Your task to perform on an android device: toggle notification dots Image 0: 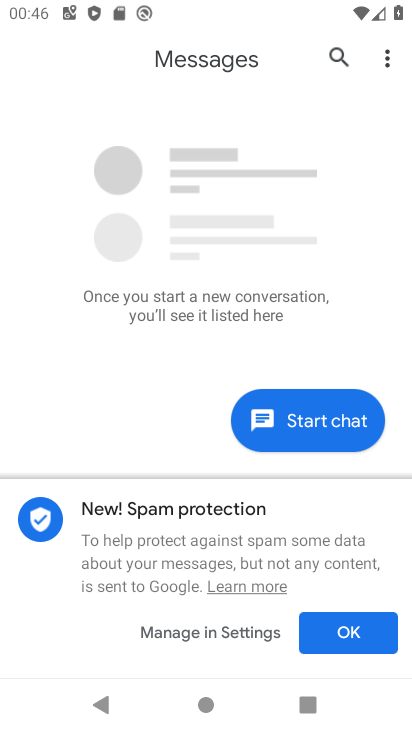
Step 0: press home button
Your task to perform on an android device: toggle notification dots Image 1: 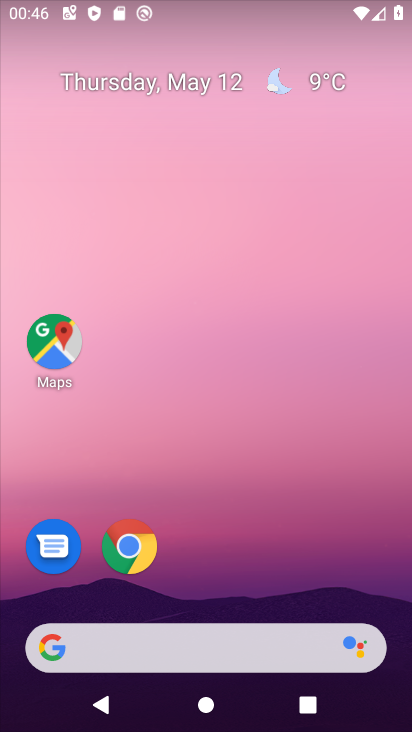
Step 1: drag from (177, 597) to (142, 202)
Your task to perform on an android device: toggle notification dots Image 2: 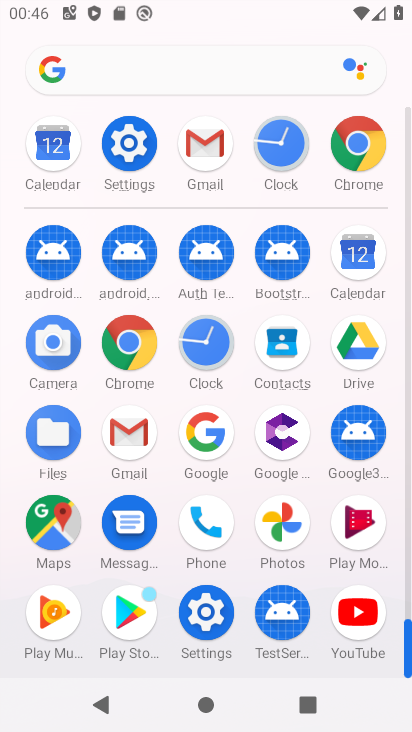
Step 2: click (126, 138)
Your task to perform on an android device: toggle notification dots Image 3: 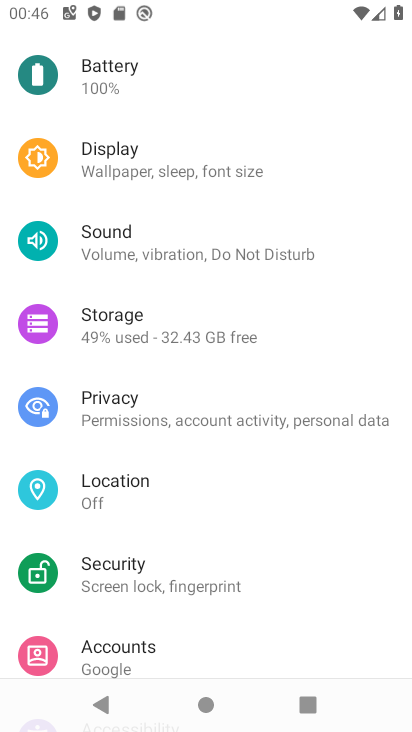
Step 3: drag from (159, 194) to (164, 582)
Your task to perform on an android device: toggle notification dots Image 4: 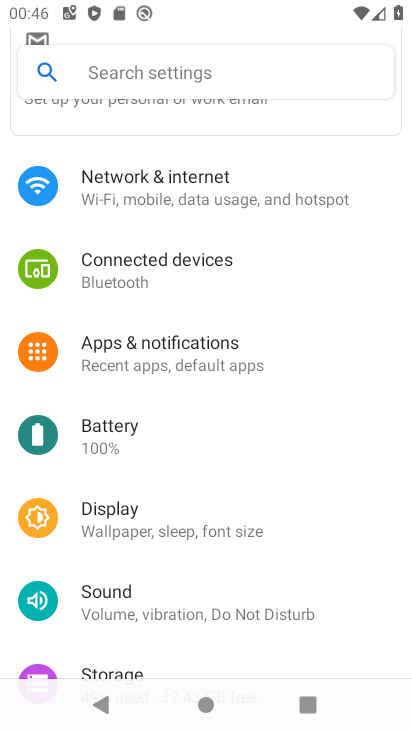
Step 4: click (151, 352)
Your task to perform on an android device: toggle notification dots Image 5: 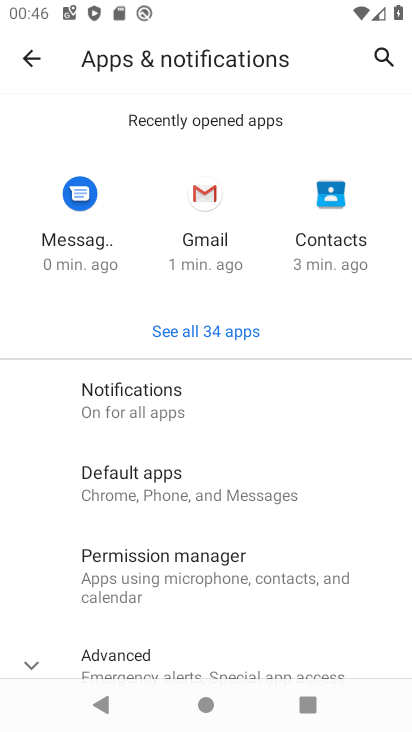
Step 5: click (168, 420)
Your task to perform on an android device: toggle notification dots Image 6: 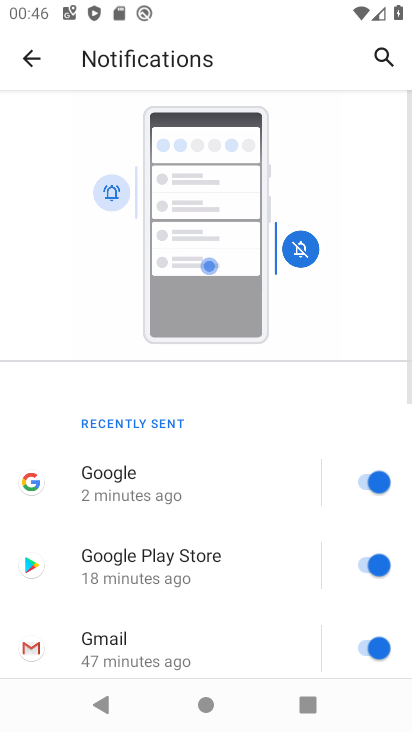
Step 6: drag from (211, 557) to (277, 178)
Your task to perform on an android device: toggle notification dots Image 7: 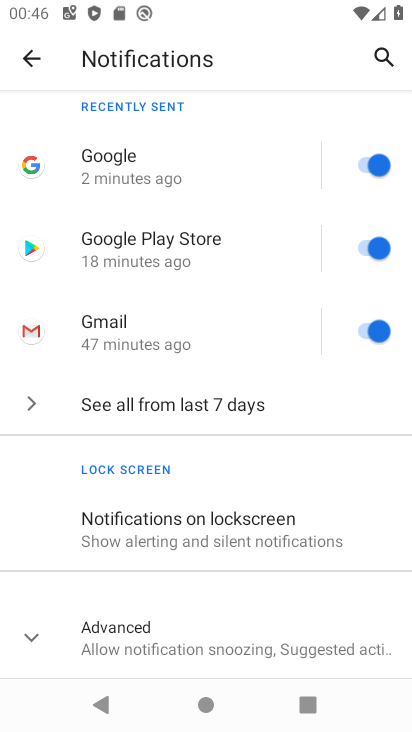
Step 7: click (25, 636)
Your task to perform on an android device: toggle notification dots Image 8: 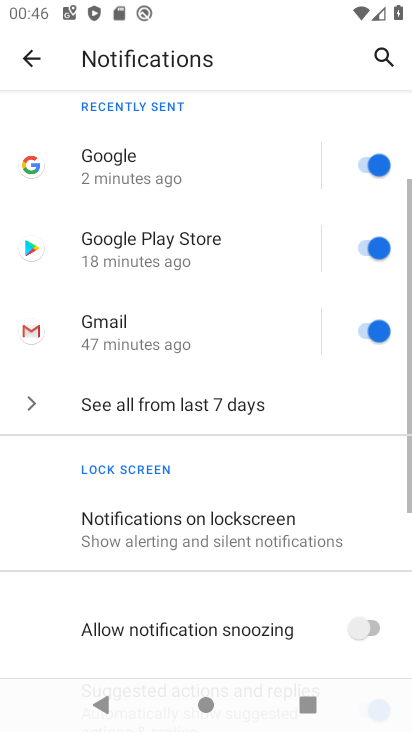
Step 8: task complete